Your task to perform on an android device: set an alarm Image 0: 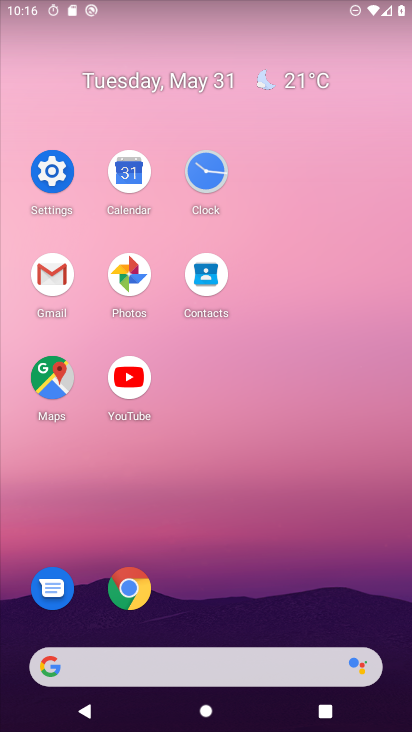
Step 0: click (187, 174)
Your task to perform on an android device: set an alarm Image 1: 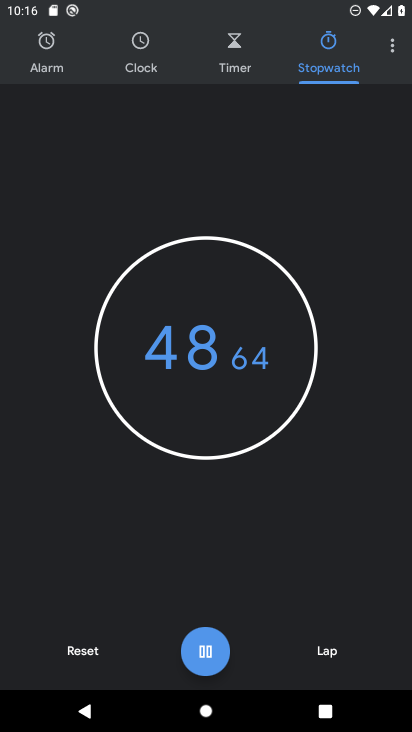
Step 1: click (49, 73)
Your task to perform on an android device: set an alarm Image 2: 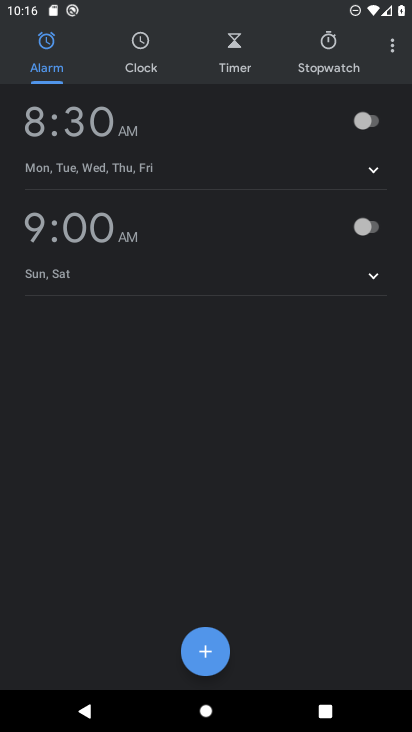
Step 2: click (374, 123)
Your task to perform on an android device: set an alarm Image 3: 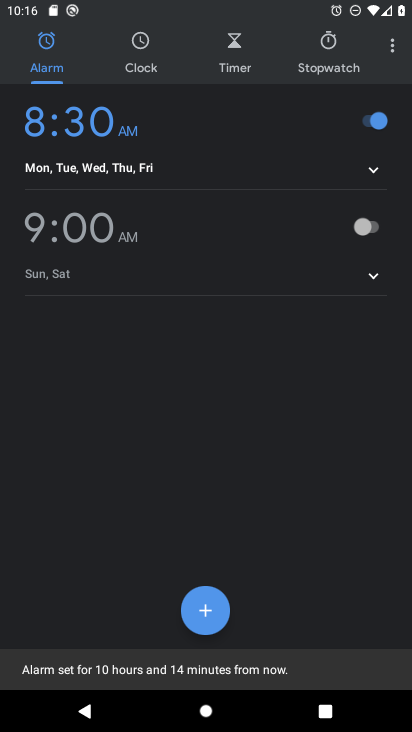
Step 3: task complete